Your task to perform on an android device: toggle show notifications on the lock screen Image 0: 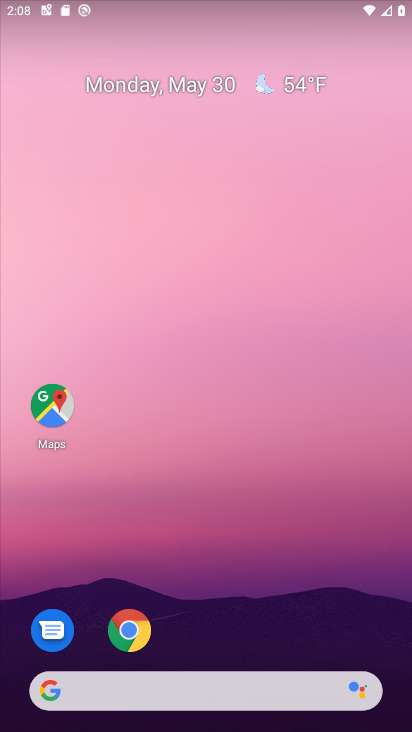
Step 0: press home button
Your task to perform on an android device: toggle show notifications on the lock screen Image 1: 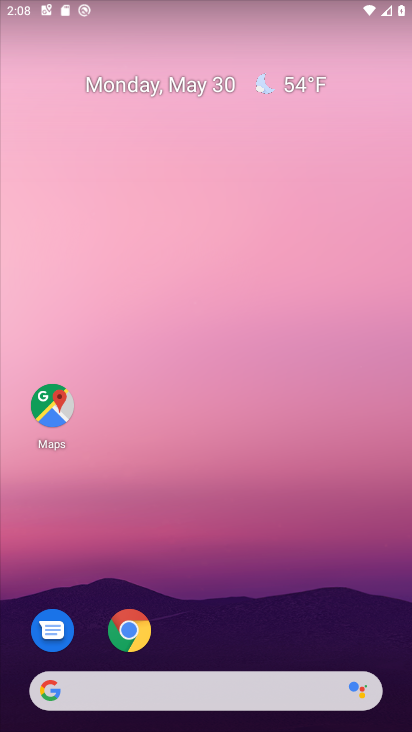
Step 1: drag from (140, 684) to (378, 67)
Your task to perform on an android device: toggle show notifications on the lock screen Image 2: 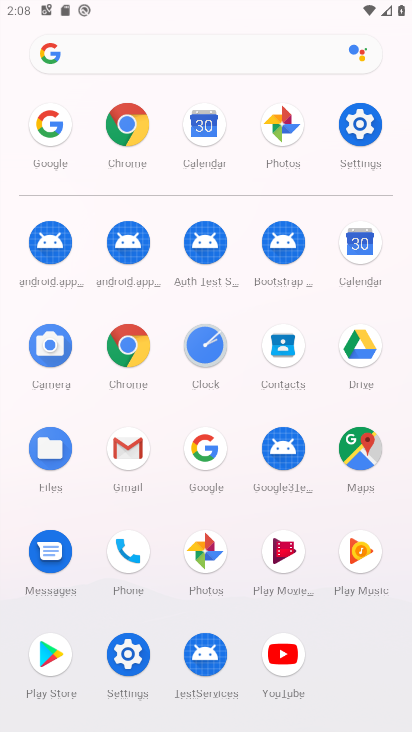
Step 2: click (360, 131)
Your task to perform on an android device: toggle show notifications on the lock screen Image 3: 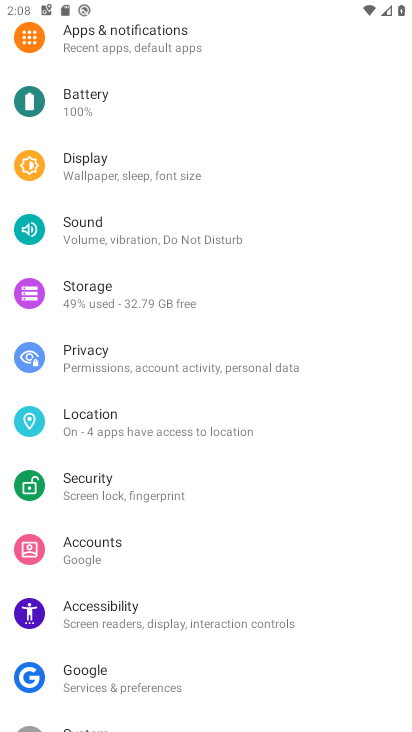
Step 3: click (148, 36)
Your task to perform on an android device: toggle show notifications on the lock screen Image 4: 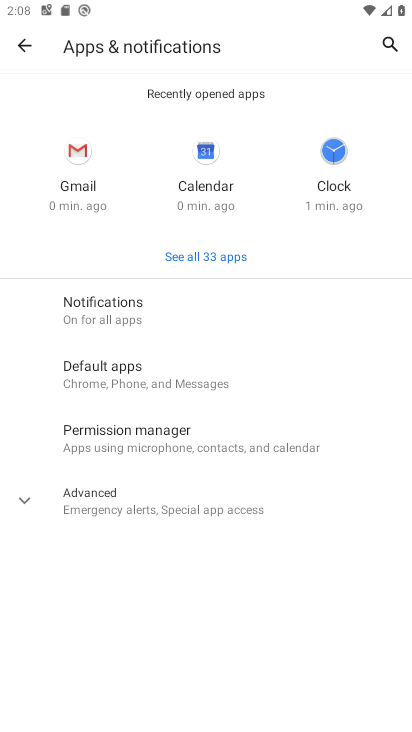
Step 4: click (111, 317)
Your task to perform on an android device: toggle show notifications on the lock screen Image 5: 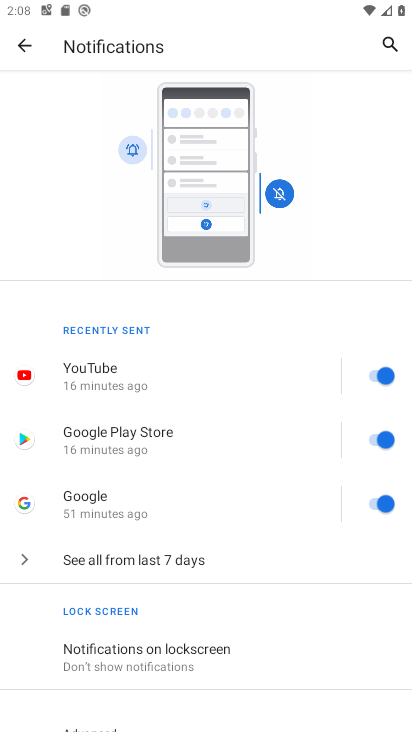
Step 5: click (202, 652)
Your task to perform on an android device: toggle show notifications on the lock screen Image 6: 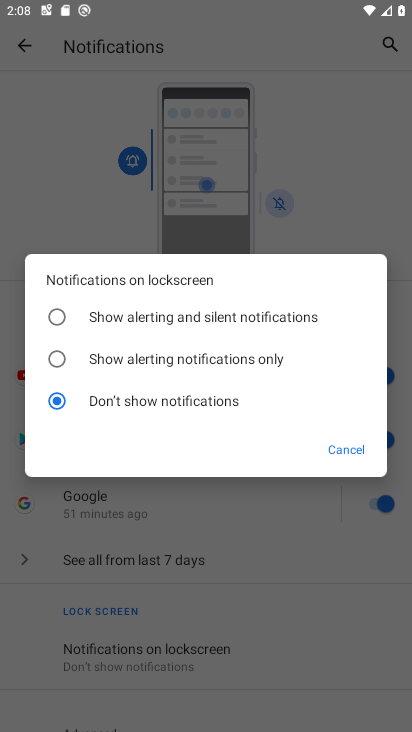
Step 6: click (56, 312)
Your task to perform on an android device: toggle show notifications on the lock screen Image 7: 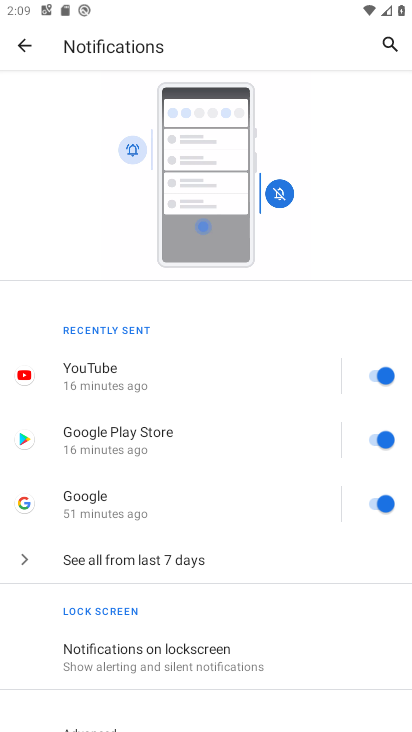
Step 7: task complete